Your task to perform on an android device: install app "Duolingo: language lessons" Image 0: 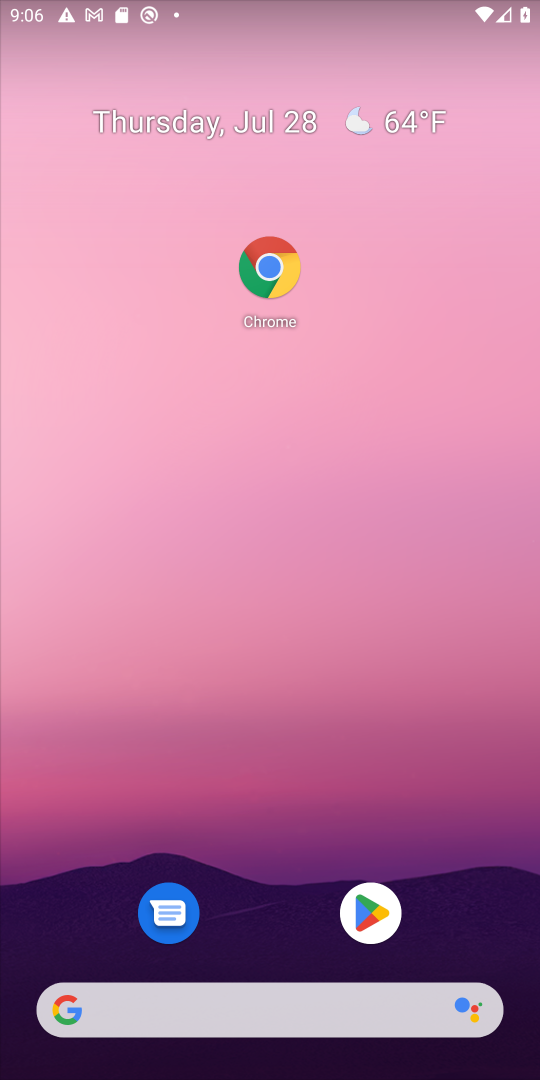
Step 0: press home button
Your task to perform on an android device: install app "Duolingo: language lessons" Image 1: 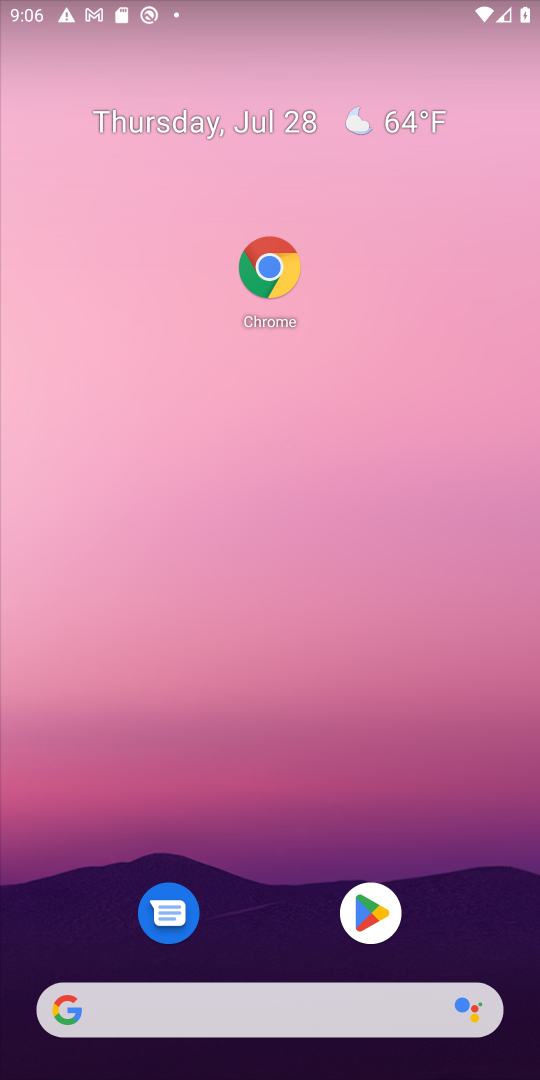
Step 1: click (357, 903)
Your task to perform on an android device: install app "Duolingo: language lessons" Image 2: 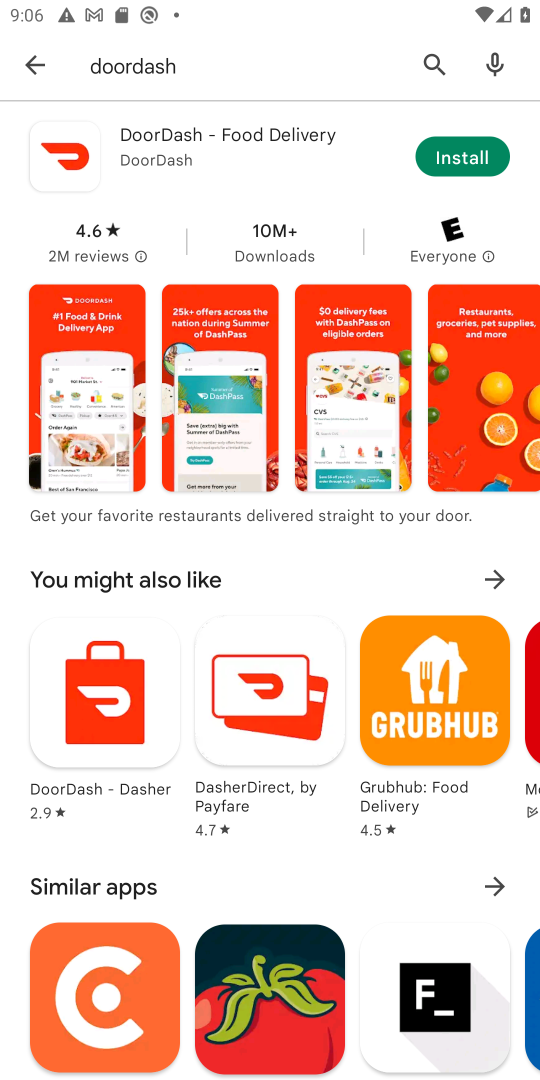
Step 2: click (433, 66)
Your task to perform on an android device: install app "Duolingo: language lessons" Image 3: 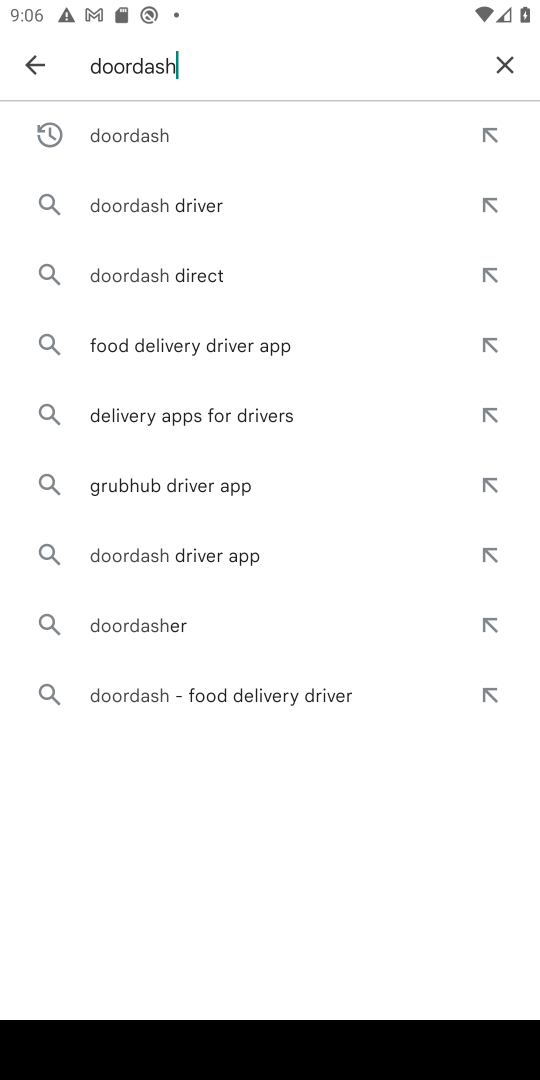
Step 3: click (492, 66)
Your task to perform on an android device: install app "Duolingo: language lessons" Image 4: 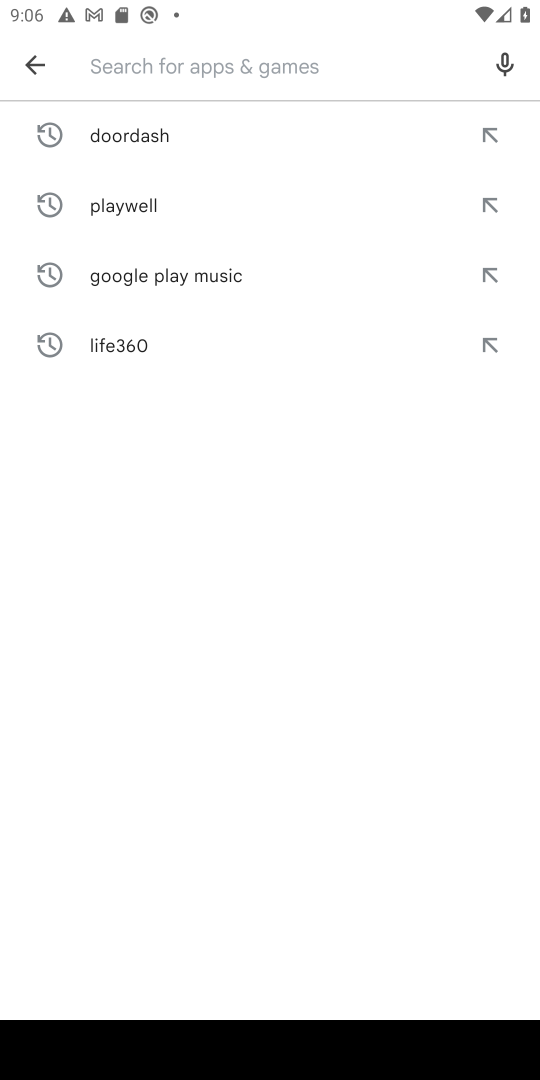
Step 4: type "duo"
Your task to perform on an android device: install app "Duolingo: language lessons" Image 5: 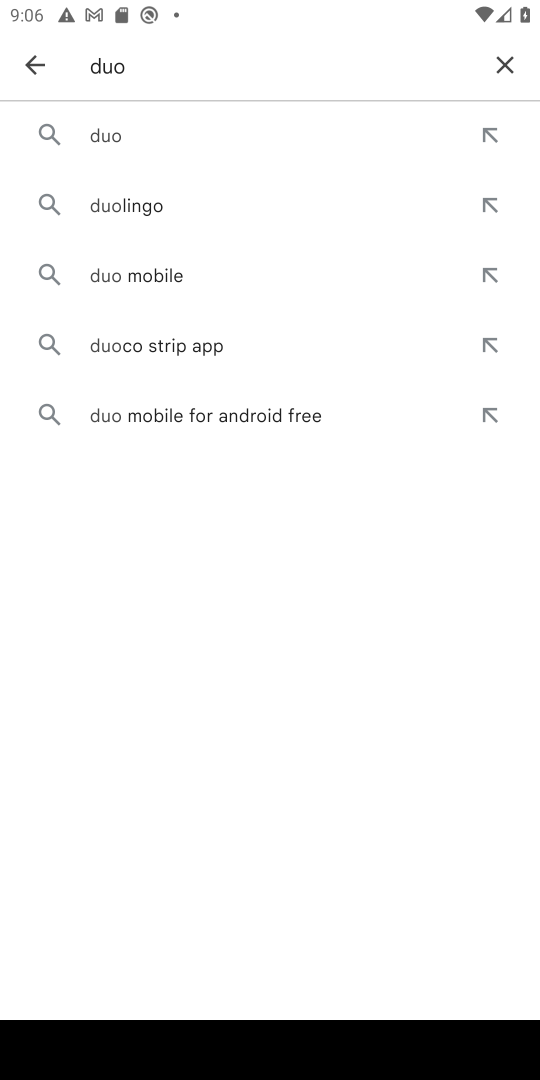
Step 5: click (172, 205)
Your task to perform on an android device: install app "Duolingo: language lessons" Image 6: 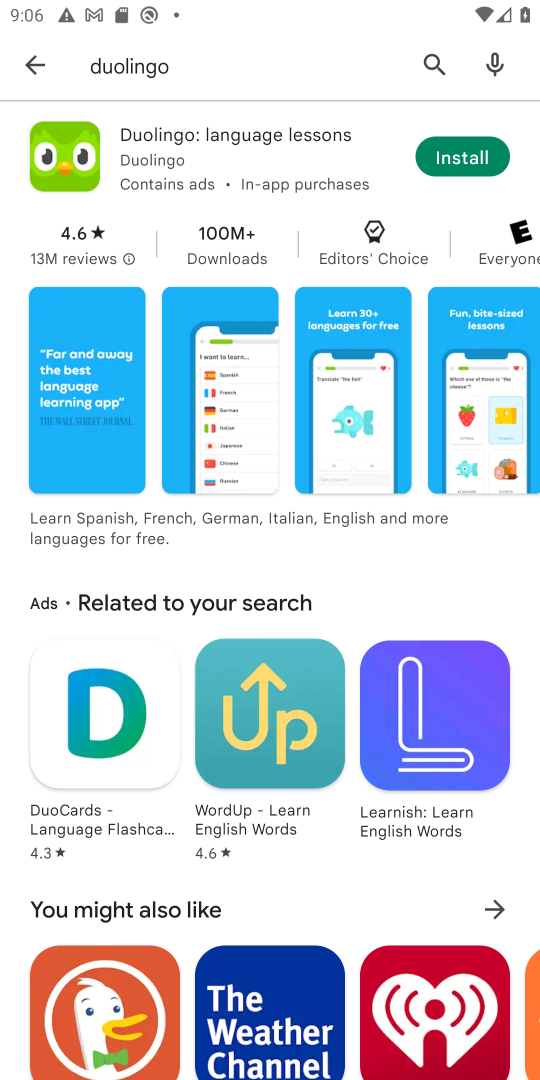
Step 6: click (456, 147)
Your task to perform on an android device: install app "Duolingo: language lessons" Image 7: 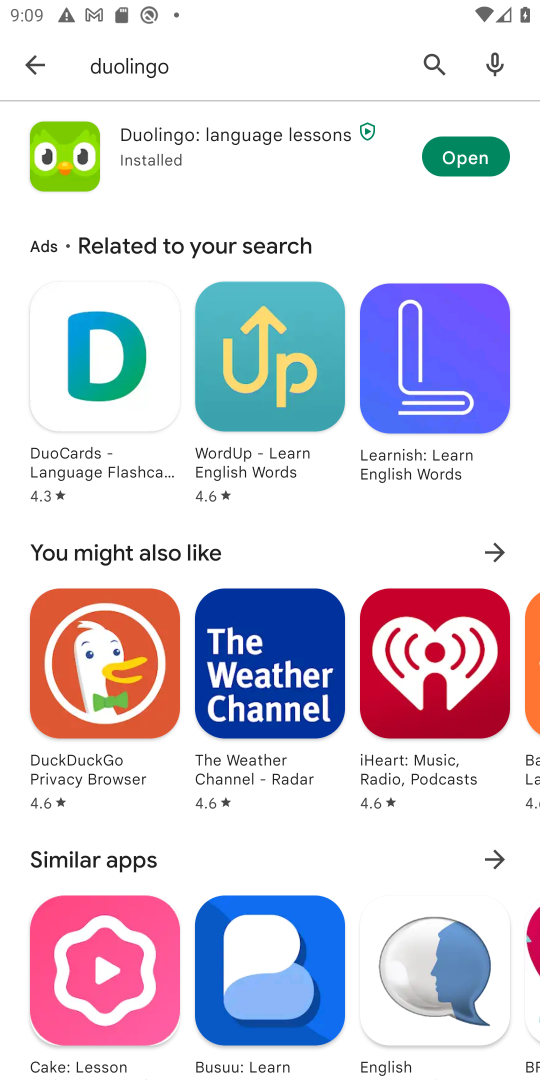
Step 7: task complete